Your task to perform on an android device: install app "Google Chrome" Image 0: 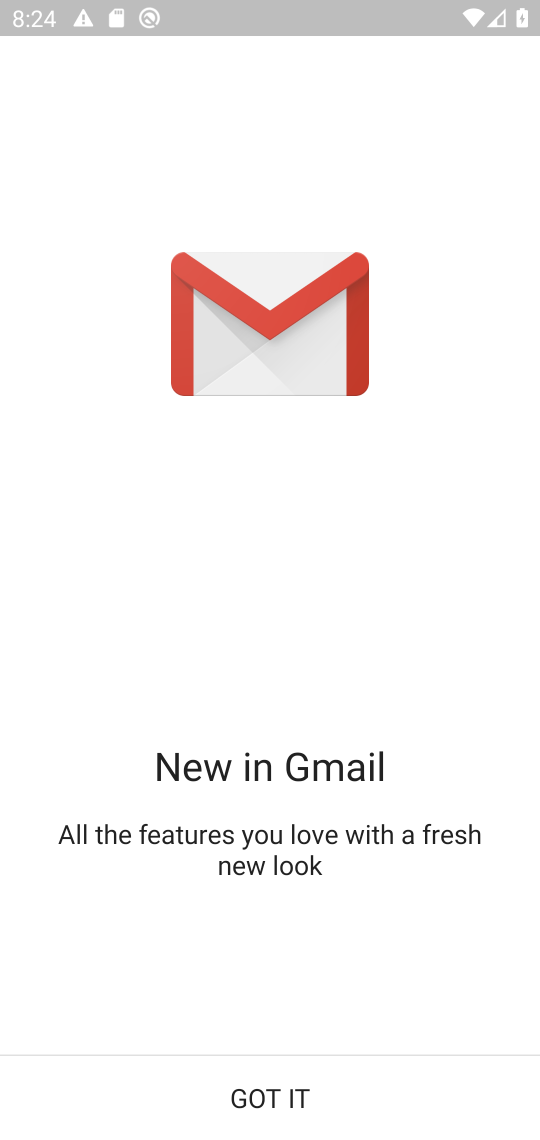
Step 0: press home button
Your task to perform on an android device: install app "Google Chrome" Image 1: 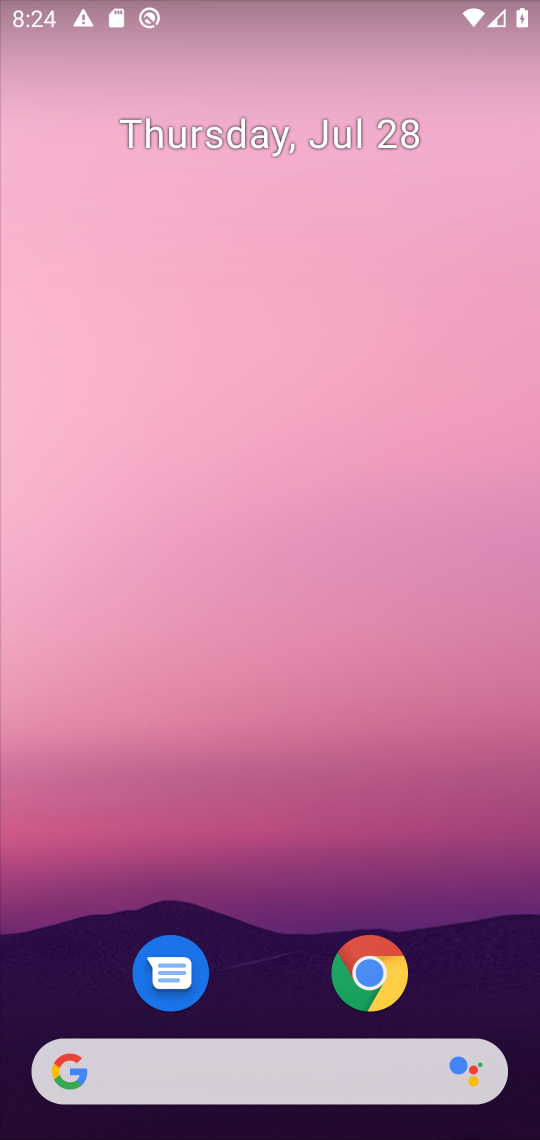
Step 1: task complete